Your task to perform on an android device: Open Google Chrome and click the shortcut for Amazon.com Image 0: 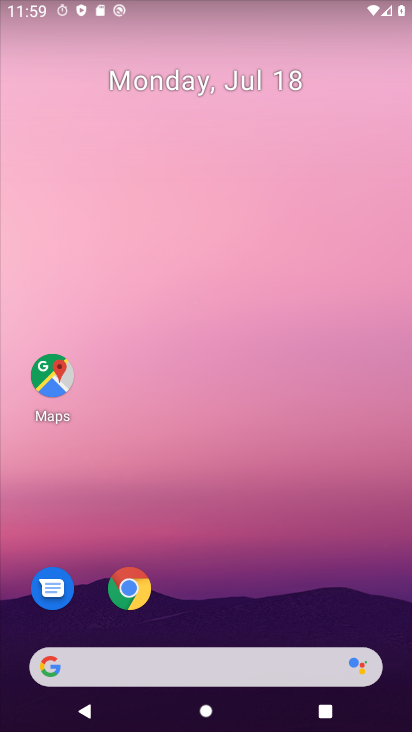
Step 0: click (238, 155)
Your task to perform on an android device: Open Google Chrome and click the shortcut for Amazon.com Image 1: 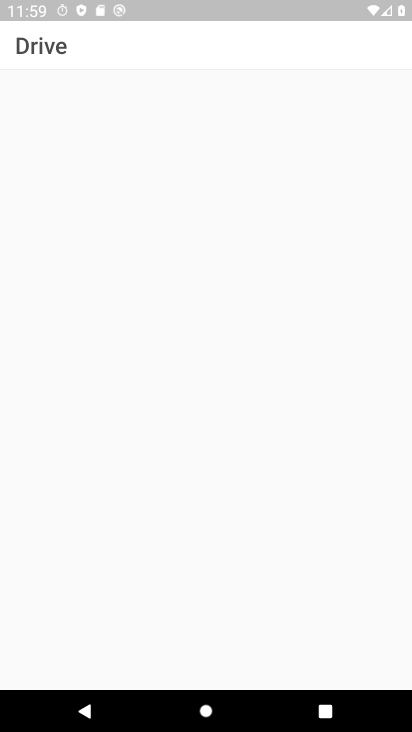
Step 1: drag from (262, 583) to (126, 41)
Your task to perform on an android device: Open Google Chrome and click the shortcut for Amazon.com Image 2: 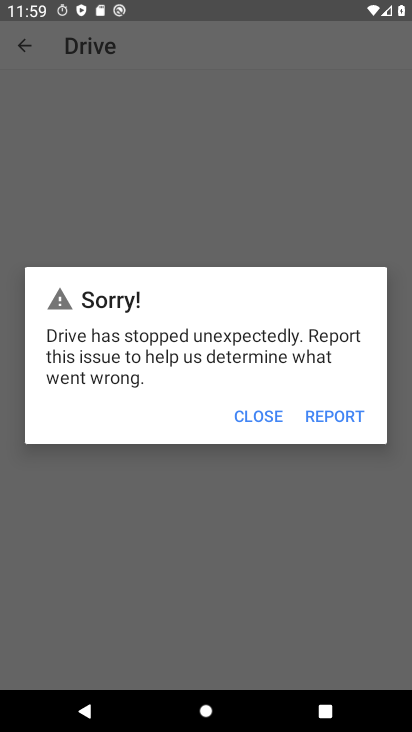
Step 2: drag from (160, 418) to (130, 51)
Your task to perform on an android device: Open Google Chrome and click the shortcut for Amazon.com Image 3: 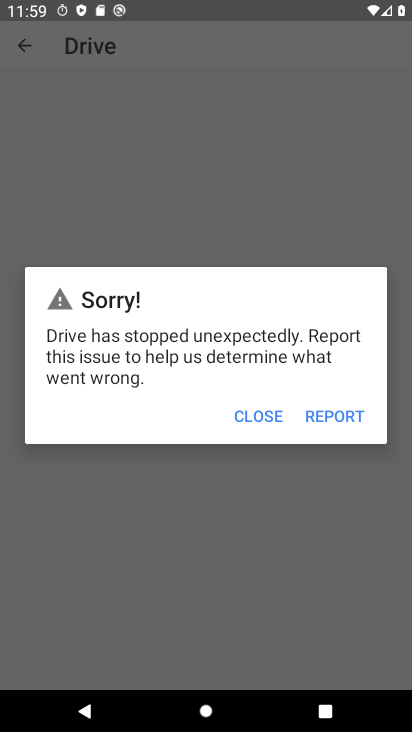
Step 3: click (247, 409)
Your task to perform on an android device: Open Google Chrome and click the shortcut for Amazon.com Image 4: 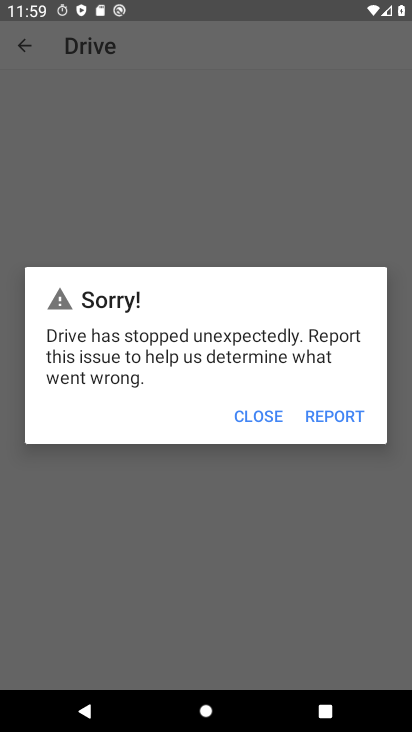
Step 4: click (255, 420)
Your task to perform on an android device: Open Google Chrome and click the shortcut for Amazon.com Image 5: 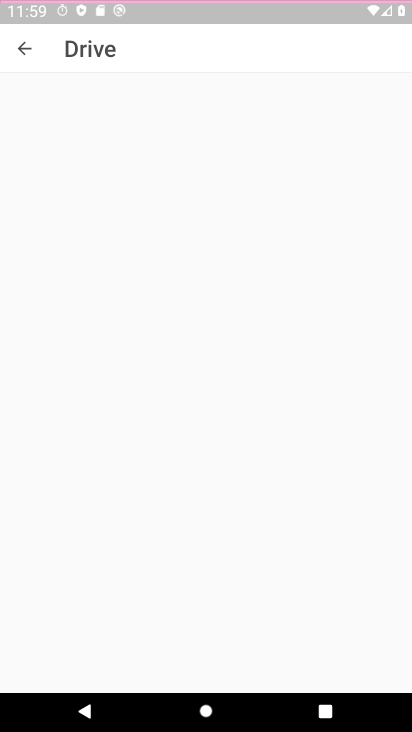
Step 5: click (256, 420)
Your task to perform on an android device: Open Google Chrome and click the shortcut for Amazon.com Image 6: 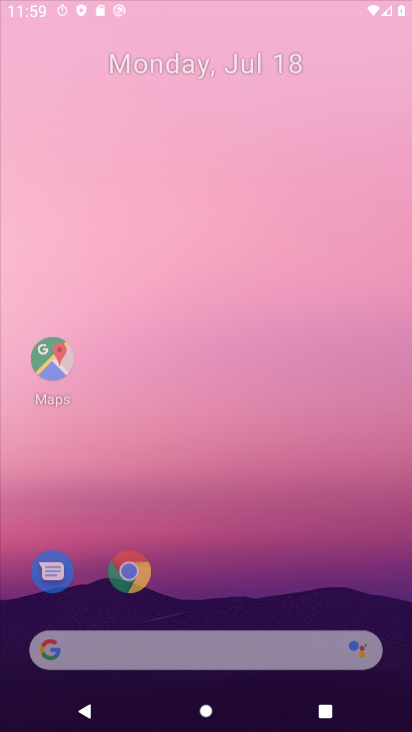
Step 6: click (258, 416)
Your task to perform on an android device: Open Google Chrome and click the shortcut for Amazon.com Image 7: 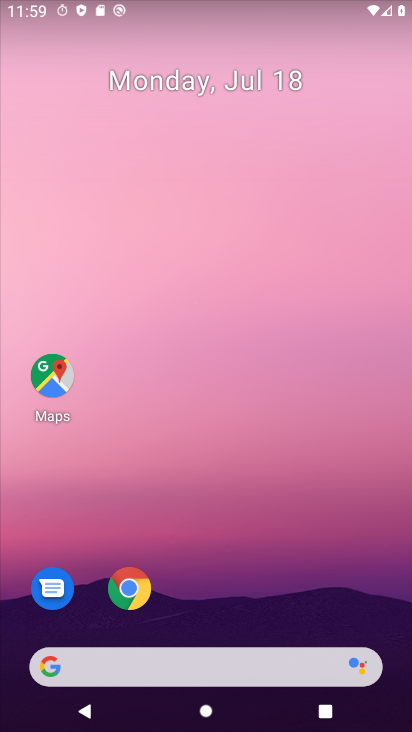
Step 7: drag from (225, 451) to (180, 82)
Your task to perform on an android device: Open Google Chrome and click the shortcut for Amazon.com Image 8: 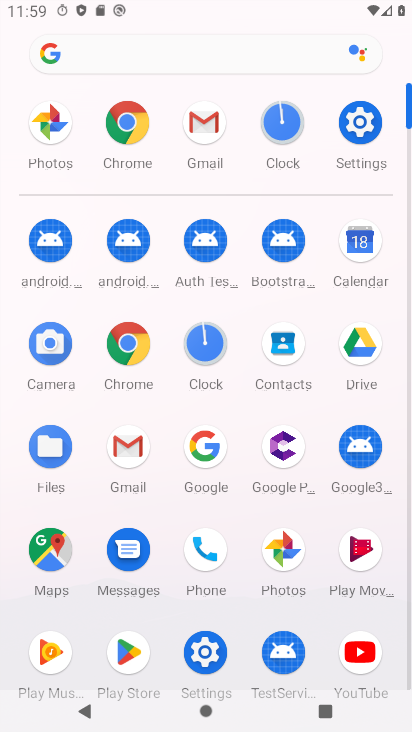
Step 8: drag from (212, 515) to (179, 132)
Your task to perform on an android device: Open Google Chrome and click the shortcut for Amazon.com Image 9: 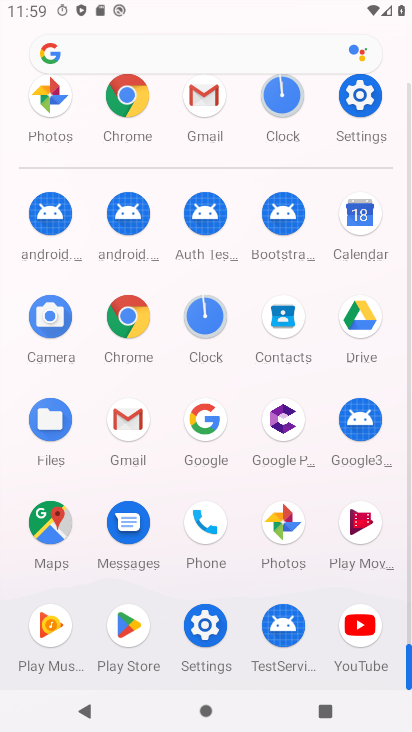
Step 9: click (129, 87)
Your task to perform on an android device: Open Google Chrome and click the shortcut for Amazon.com Image 10: 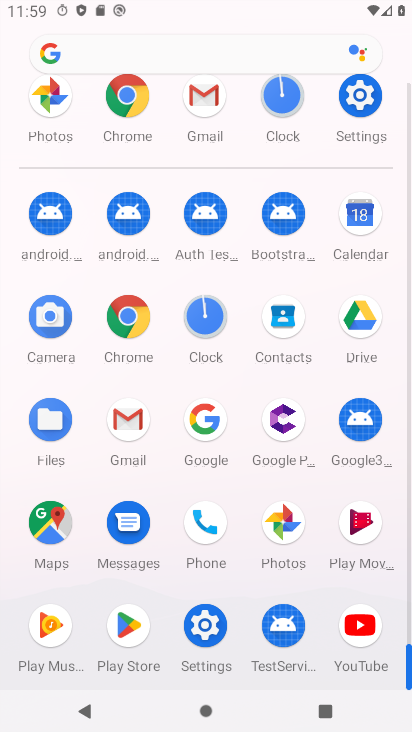
Step 10: click (130, 86)
Your task to perform on an android device: Open Google Chrome and click the shortcut for Amazon.com Image 11: 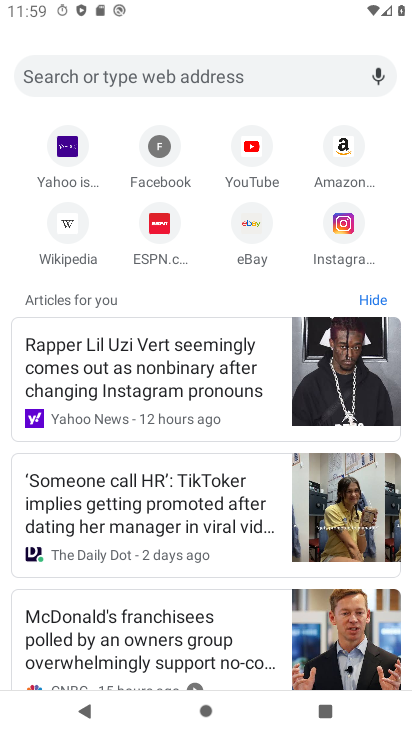
Step 11: click (346, 150)
Your task to perform on an android device: Open Google Chrome and click the shortcut for Amazon.com Image 12: 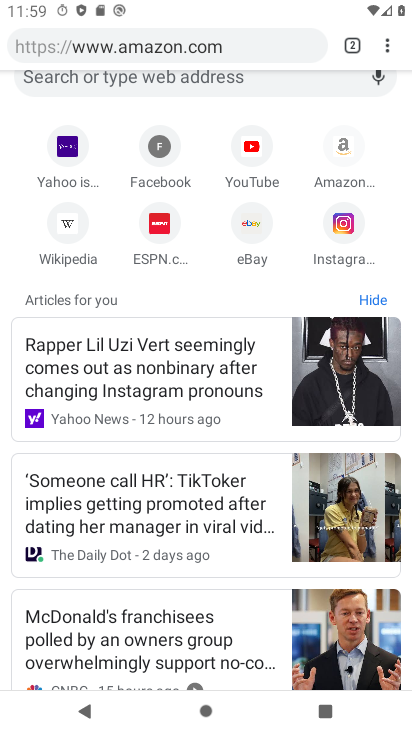
Step 12: click (345, 148)
Your task to perform on an android device: Open Google Chrome and click the shortcut for Amazon.com Image 13: 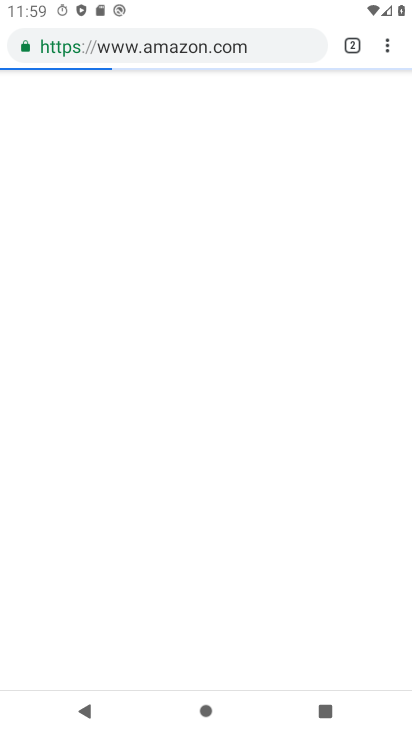
Step 13: click (349, 151)
Your task to perform on an android device: Open Google Chrome and click the shortcut for Amazon.com Image 14: 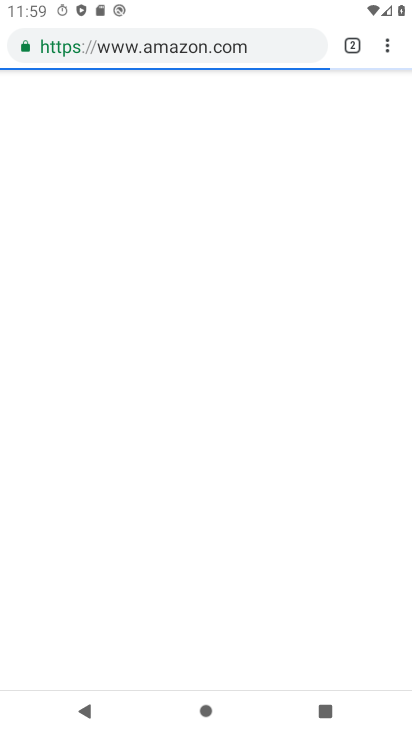
Step 14: click (349, 151)
Your task to perform on an android device: Open Google Chrome and click the shortcut for Amazon.com Image 15: 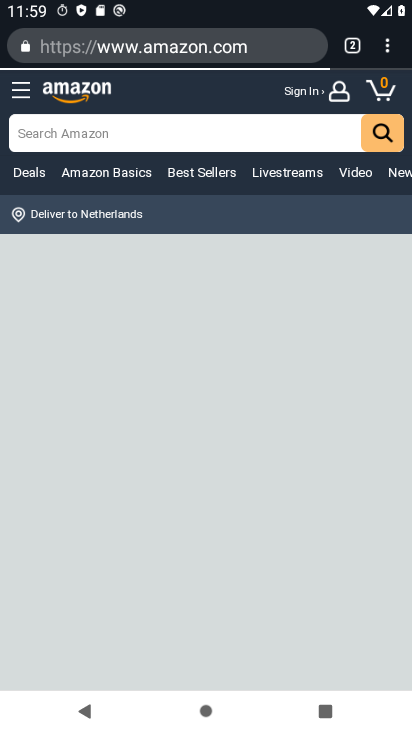
Step 15: task complete